Your task to perform on an android device: Open privacy settings Image 0: 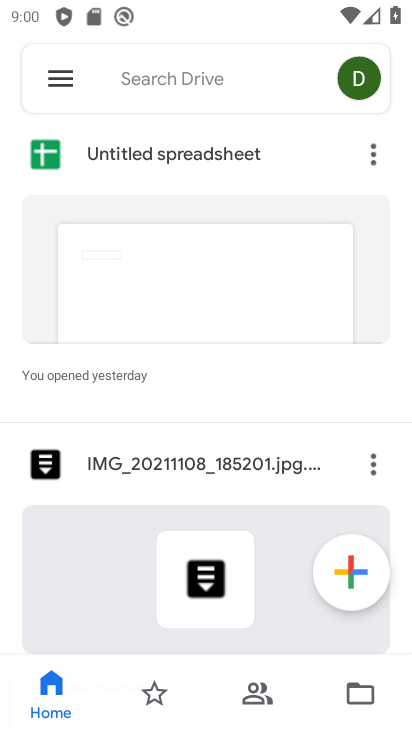
Step 0: press home button
Your task to perform on an android device: Open privacy settings Image 1: 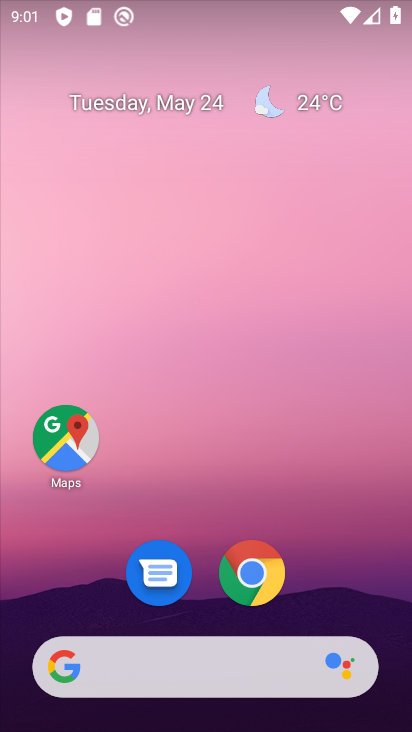
Step 1: drag from (383, 614) to (289, 102)
Your task to perform on an android device: Open privacy settings Image 2: 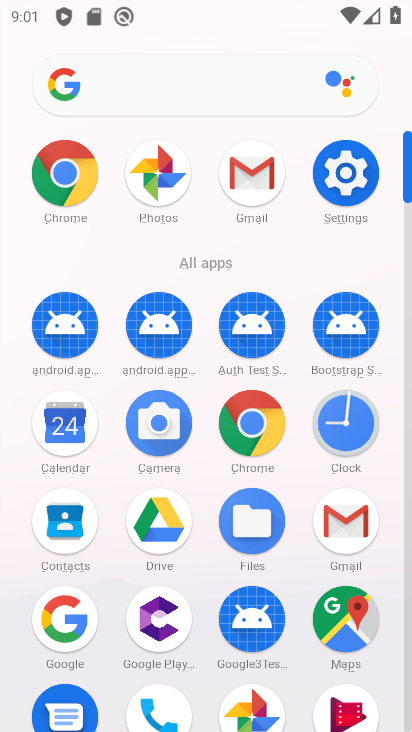
Step 2: click (406, 680)
Your task to perform on an android device: Open privacy settings Image 3: 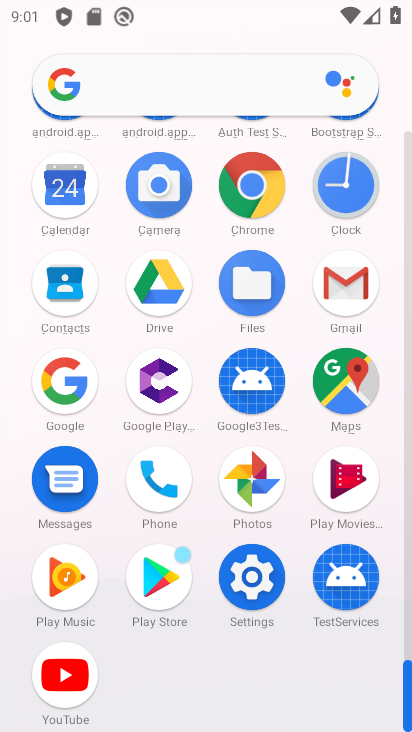
Step 3: click (253, 576)
Your task to perform on an android device: Open privacy settings Image 4: 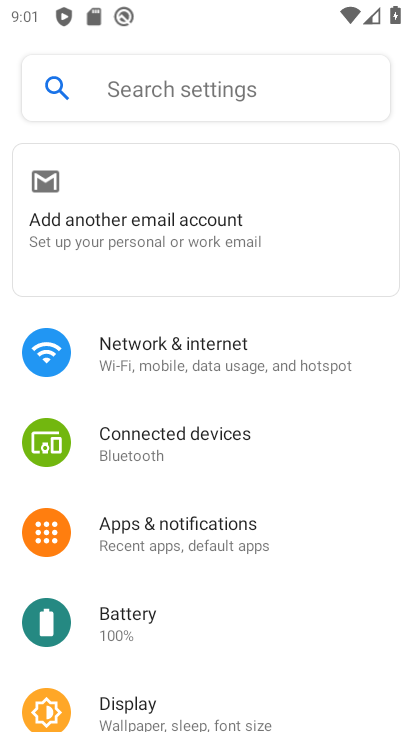
Step 4: drag from (248, 605) to (313, 225)
Your task to perform on an android device: Open privacy settings Image 5: 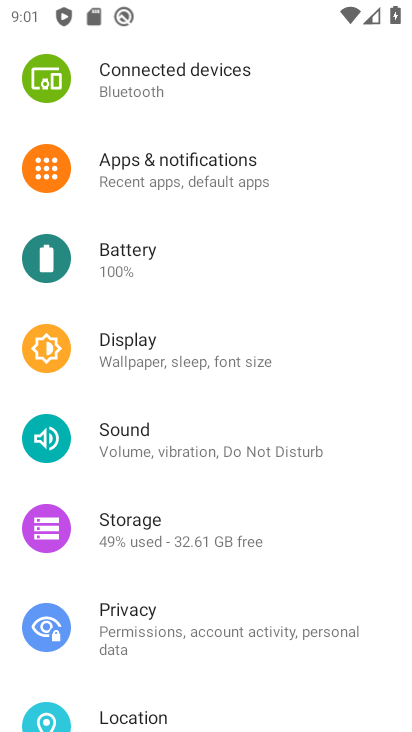
Step 5: click (123, 613)
Your task to perform on an android device: Open privacy settings Image 6: 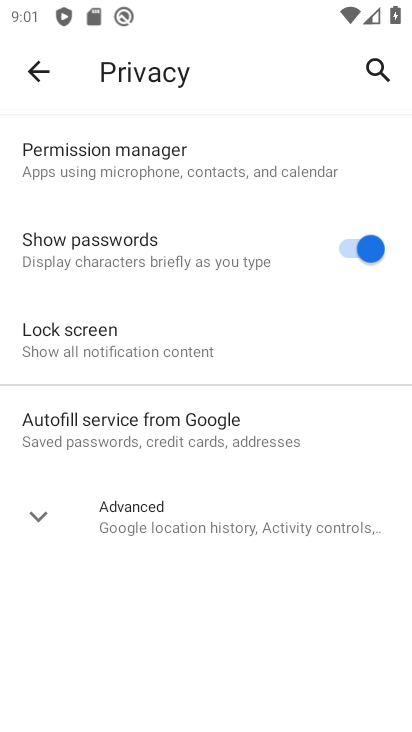
Step 6: click (39, 528)
Your task to perform on an android device: Open privacy settings Image 7: 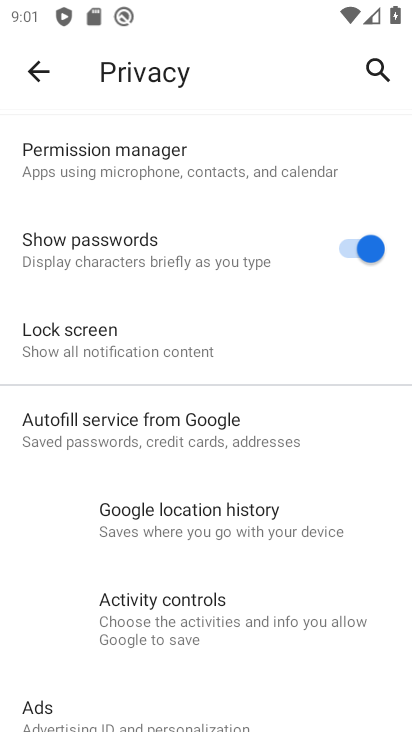
Step 7: task complete